Your task to perform on an android device: open chrome privacy settings Image 0: 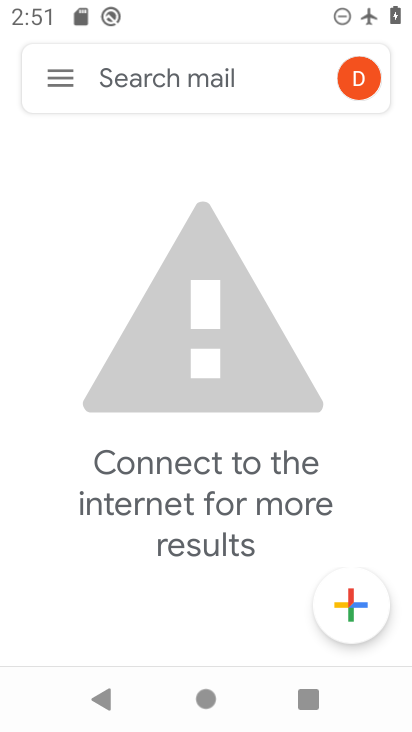
Step 0: press home button
Your task to perform on an android device: open chrome privacy settings Image 1: 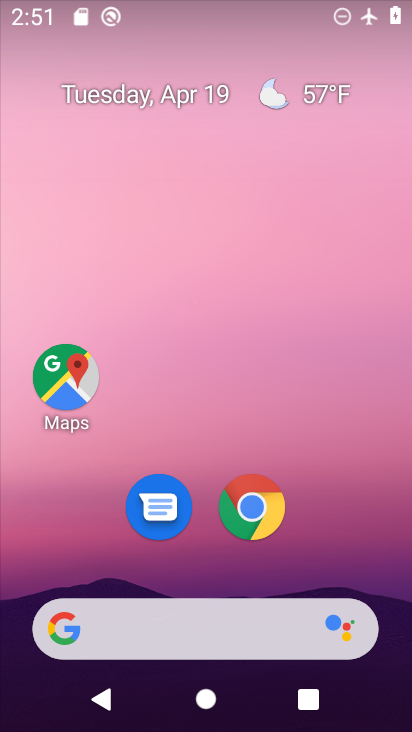
Step 1: click (261, 494)
Your task to perform on an android device: open chrome privacy settings Image 2: 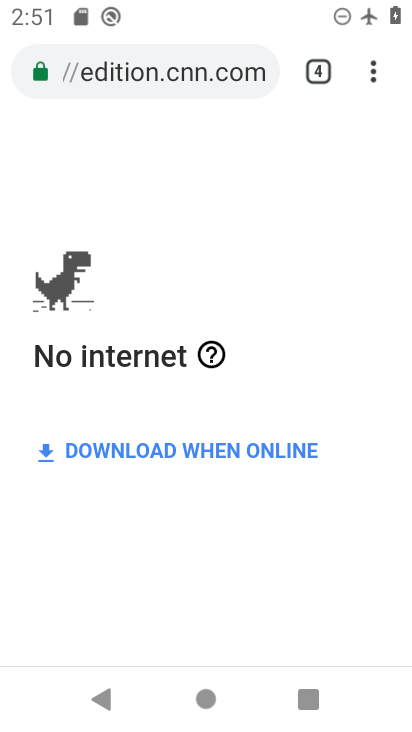
Step 2: click (371, 79)
Your task to perform on an android device: open chrome privacy settings Image 3: 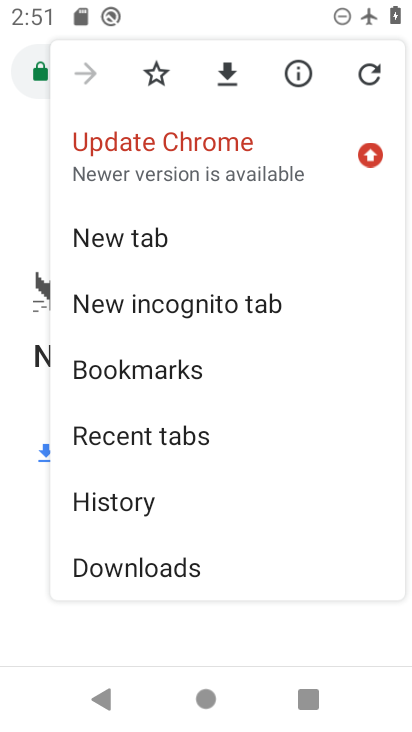
Step 3: drag from (295, 447) to (293, 226)
Your task to perform on an android device: open chrome privacy settings Image 4: 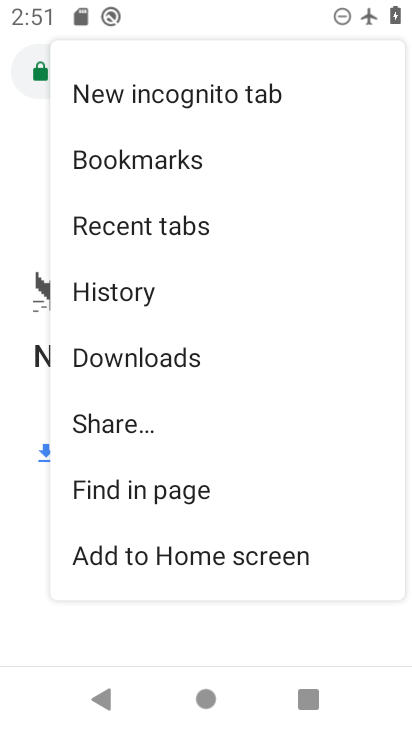
Step 4: drag from (247, 476) to (270, 182)
Your task to perform on an android device: open chrome privacy settings Image 5: 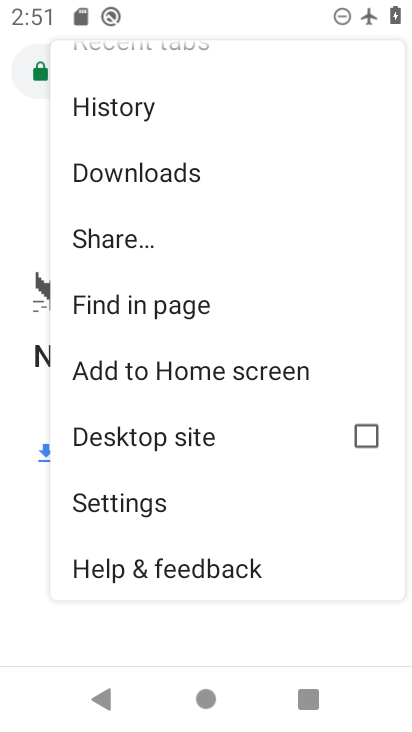
Step 5: click (190, 506)
Your task to perform on an android device: open chrome privacy settings Image 6: 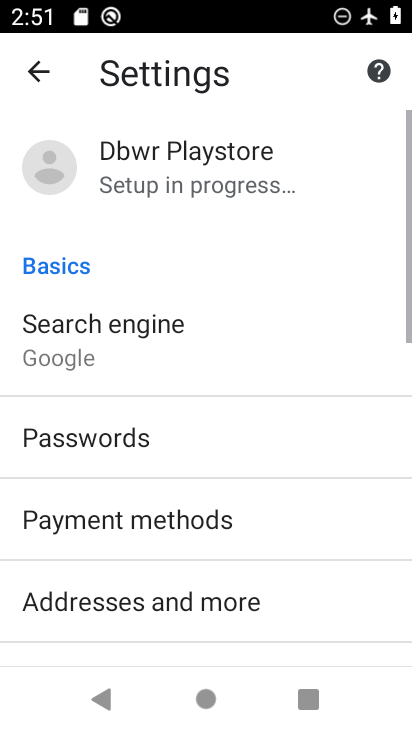
Step 6: drag from (156, 495) to (172, 324)
Your task to perform on an android device: open chrome privacy settings Image 7: 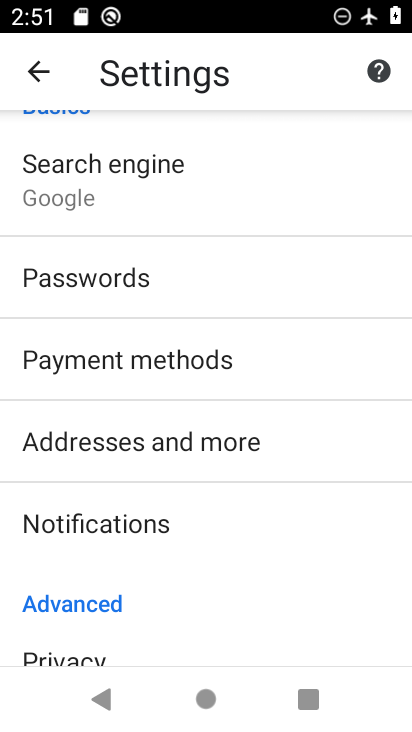
Step 7: drag from (206, 494) to (265, 214)
Your task to perform on an android device: open chrome privacy settings Image 8: 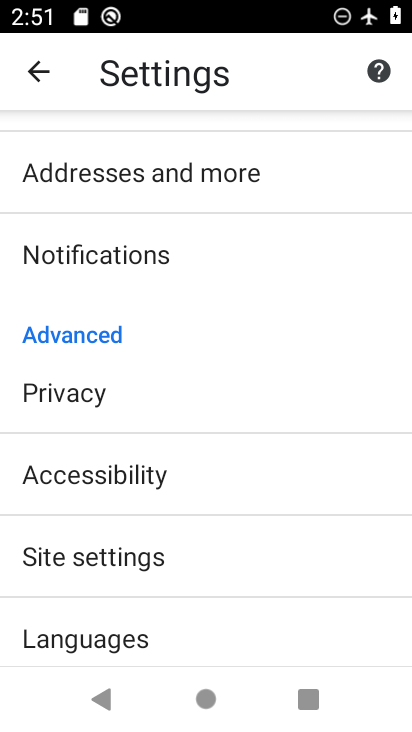
Step 8: click (211, 377)
Your task to perform on an android device: open chrome privacy settings Image 9: 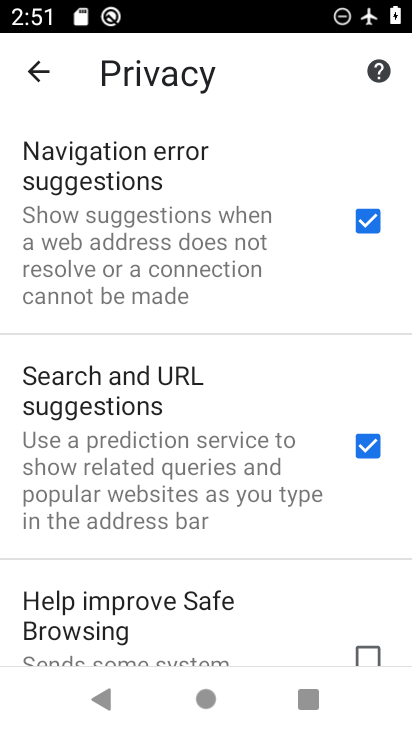
Step 9: task complete